Your task to perform on an android device: Search for a 3d printer on aliexpress Image 0: 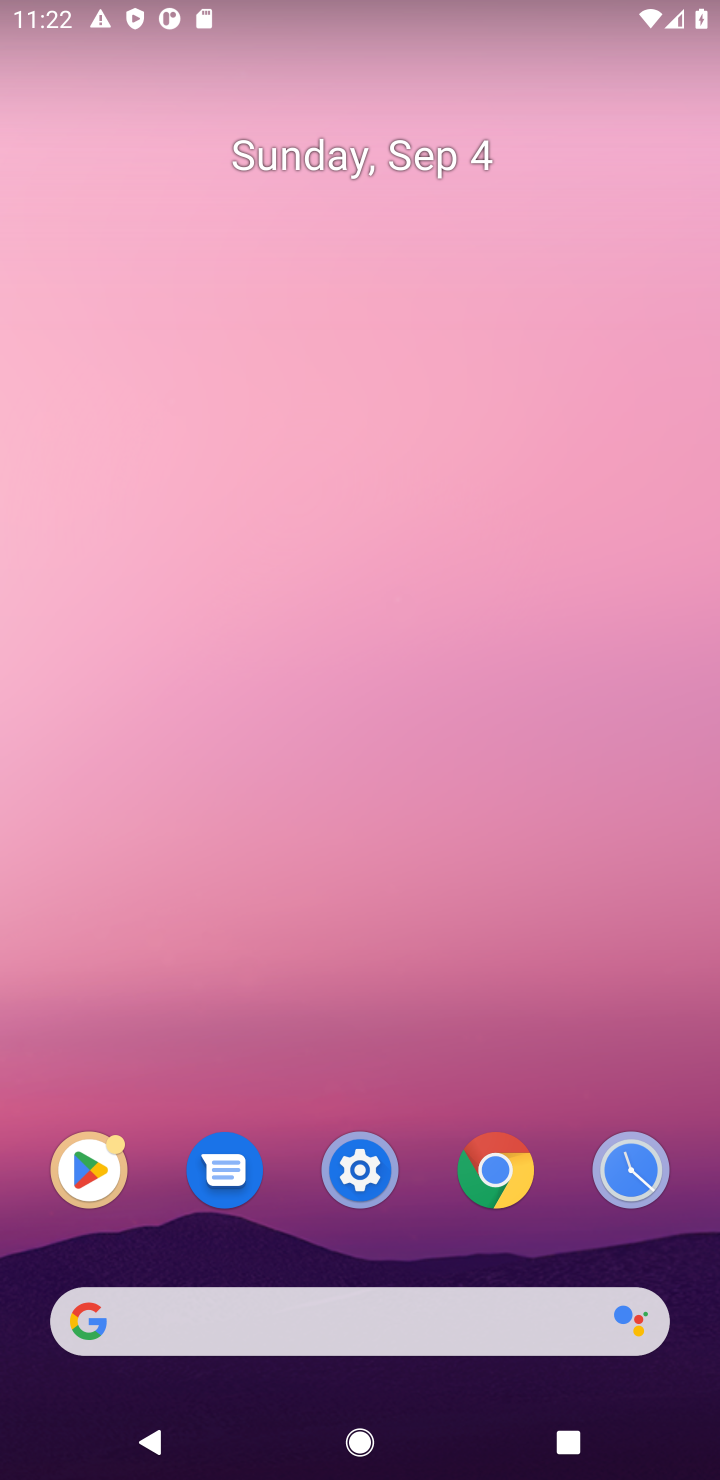
Step 0: click (345, 1330)
Your task to perform on an android device: Search for a 3d printer on aliexpress Image 1: 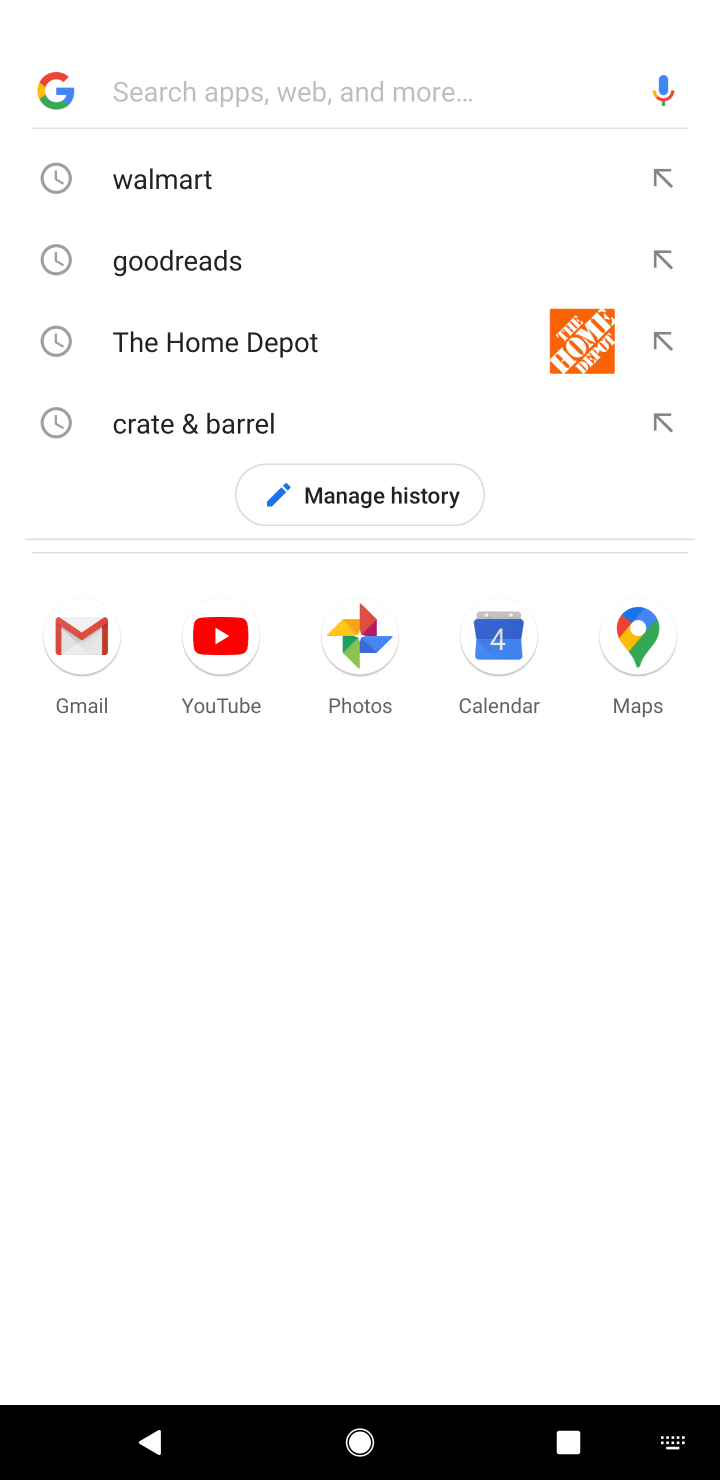
Step 1: type "aliexpress"
Your task to perform on an android device: Search for a 3d printer on aliexpress Image 2: 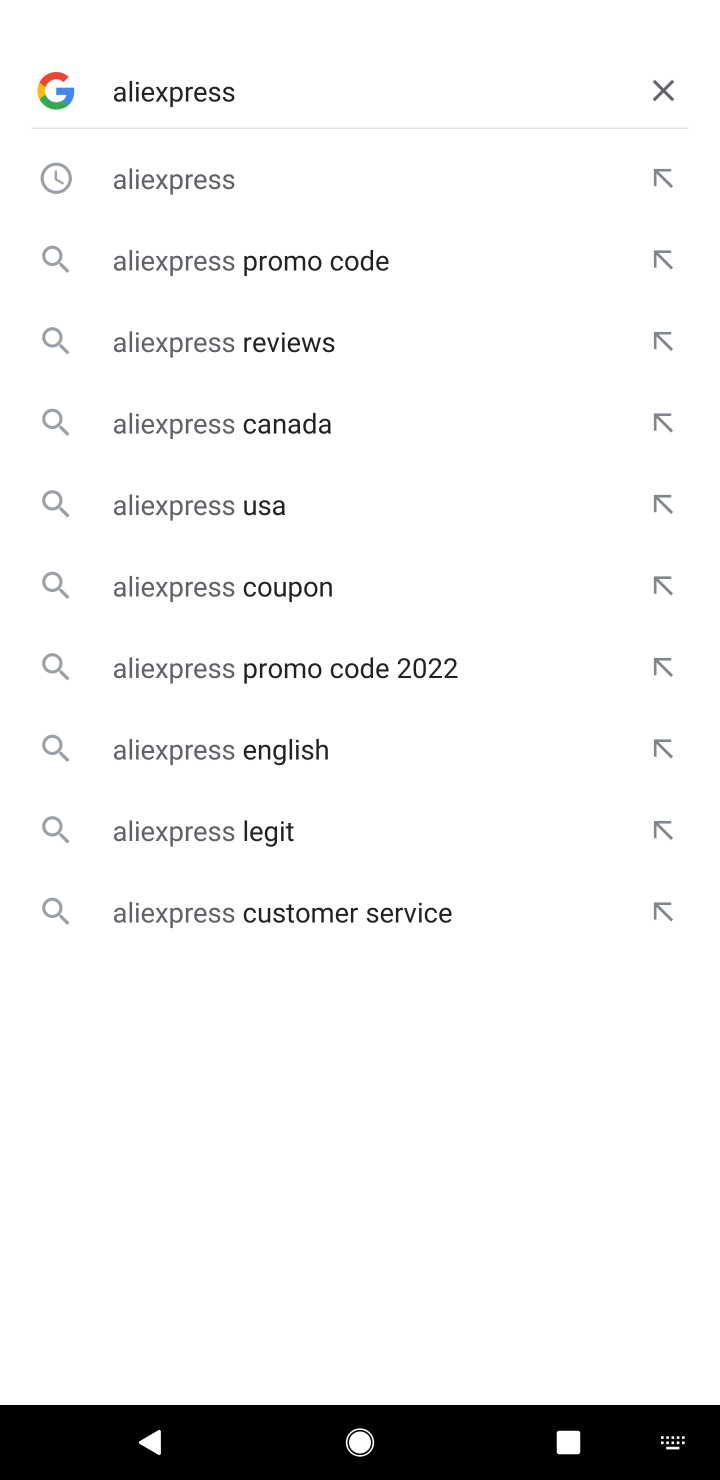
Step 2: click (162, 165)
Your task to perform on an android device: Search for a 3d printer on aliexpress Image 3: 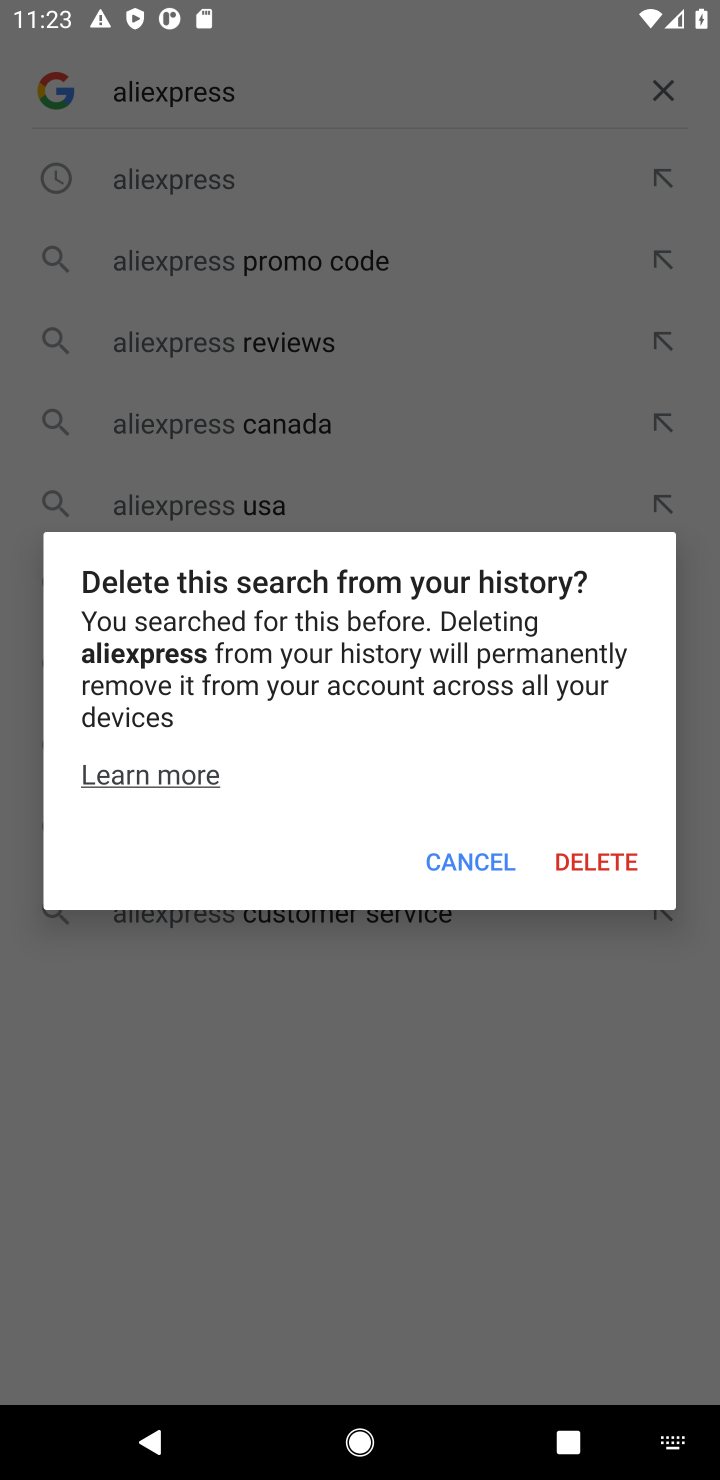
Step 3: click (504, 858)
Your task to perform on an android device: Search for a 3d printer on aliexpress Image 4: 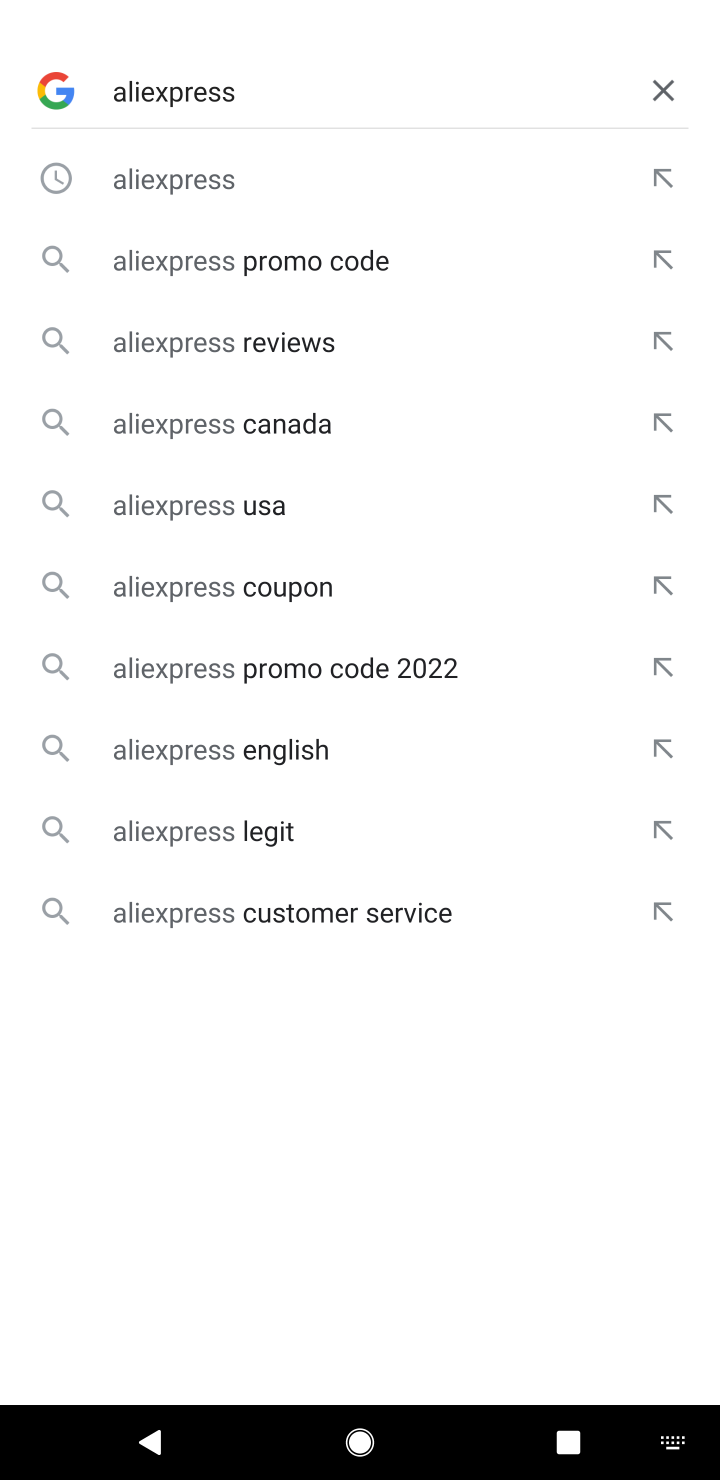
Step 4: click (153, 172)
Your task to perform on an android device: Search for a 3d printer on aliexpress Image 5: 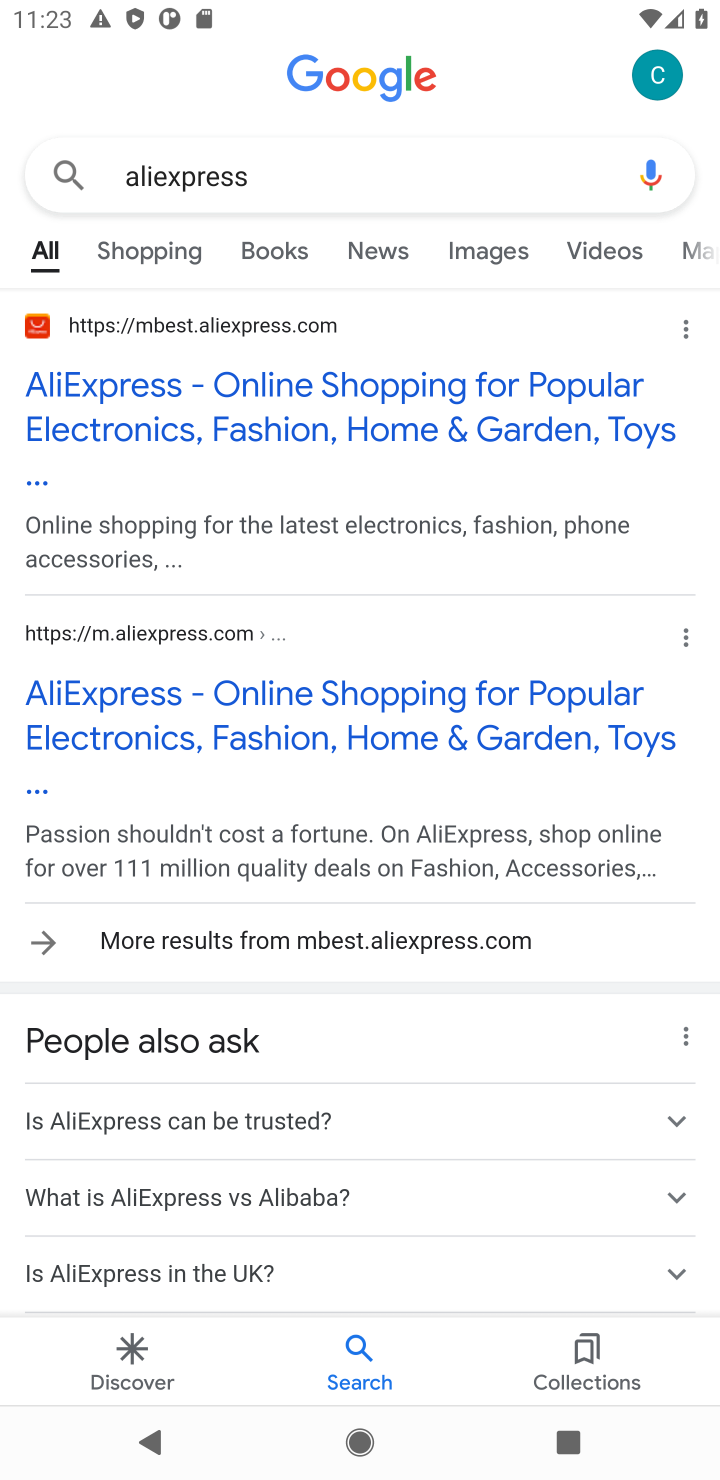
Step 5: click (189, 429)
Your task to perform on an android device: Search for a 3d printer on aliexpress Image 6: 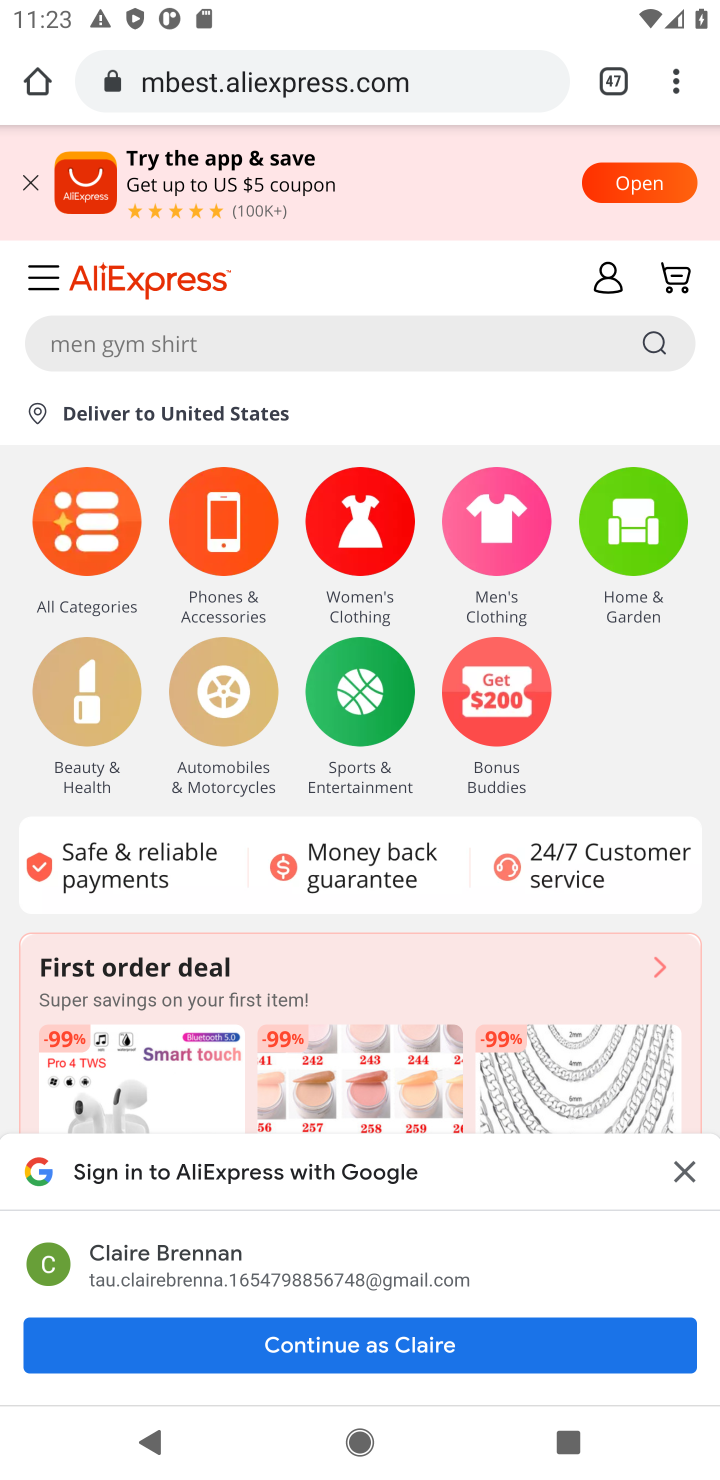
Step 6: click (260, 328)
Your task to perform on an android device: Search for a 3d printer on aliexpress Image 7: 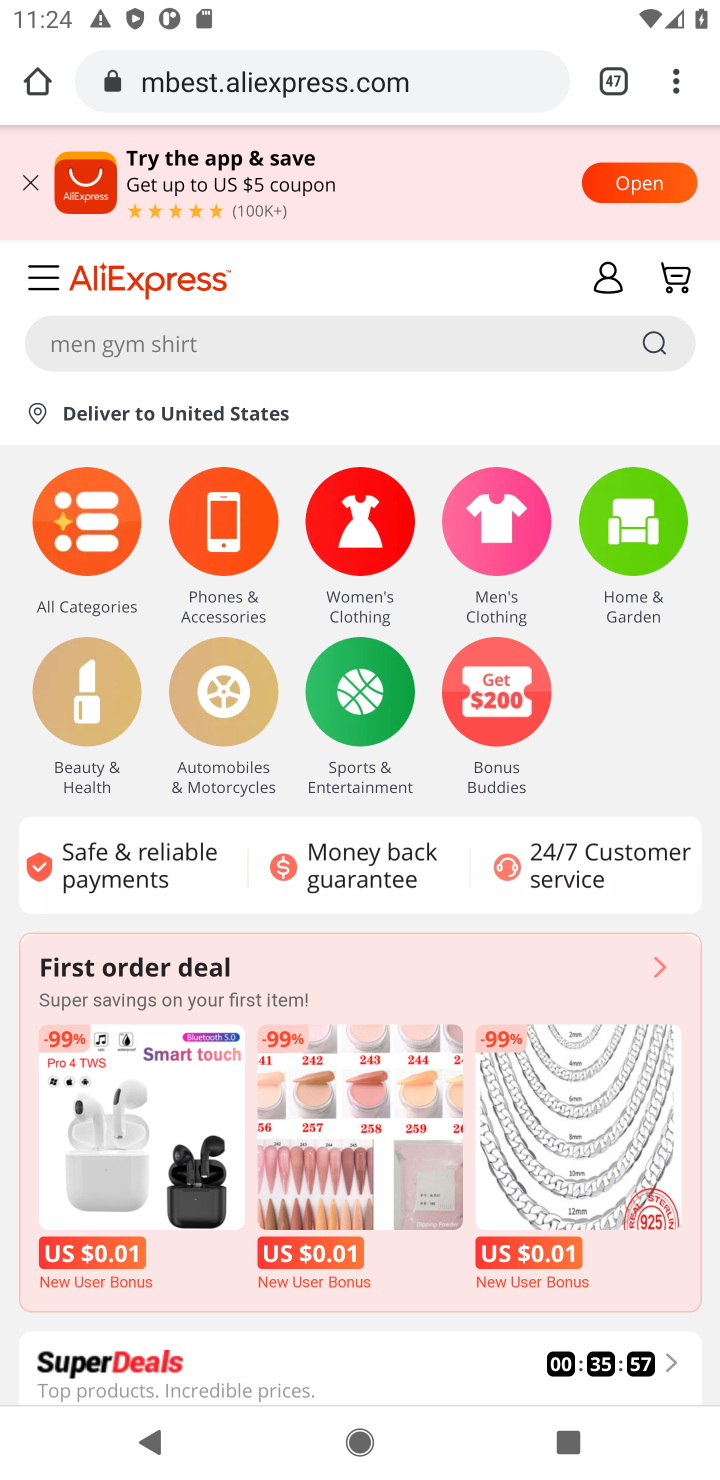
Step 7: type "3d printer"
Your task to perform on an android device: Search for a 3d printer on aliexpress Image 8: 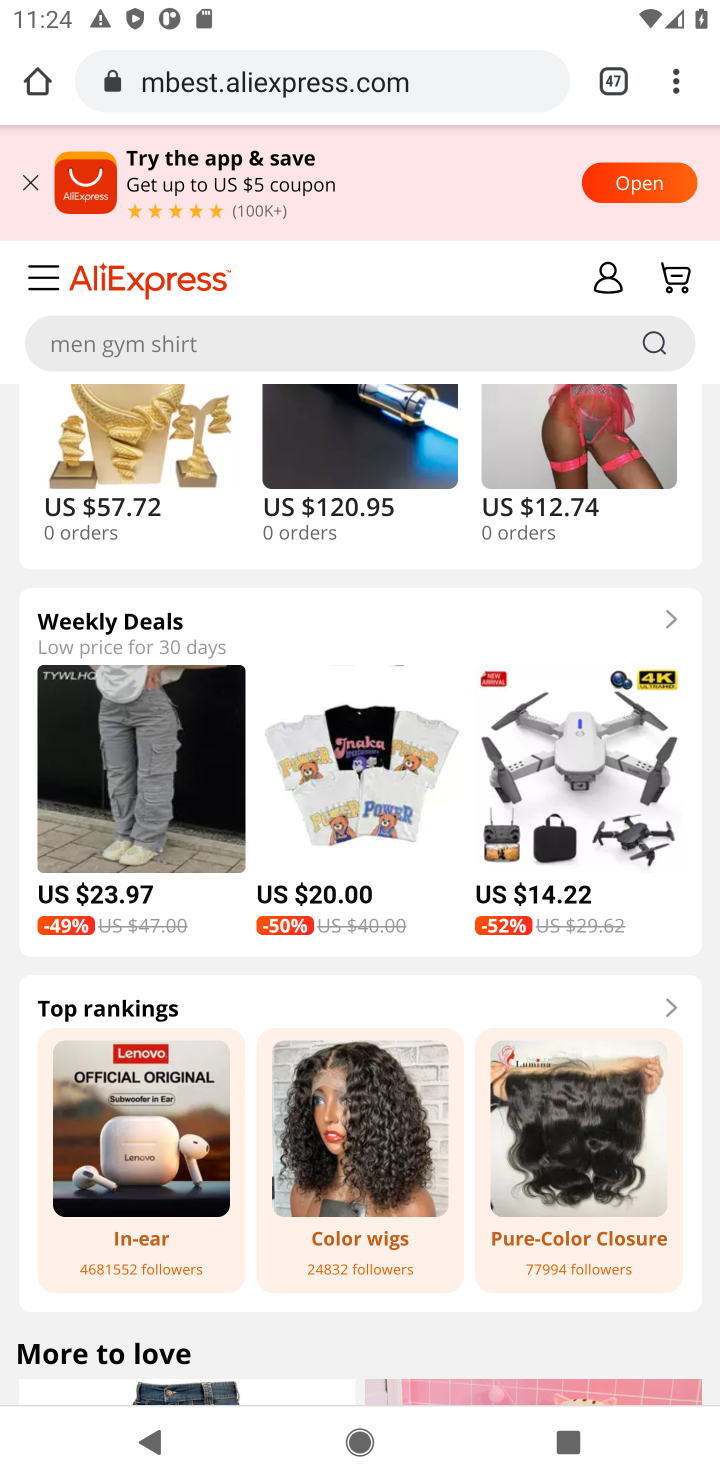
Step 8: click (449, 322)
Your task to perform on an android device: Search for a 3d printer on aliexpress Image 9: 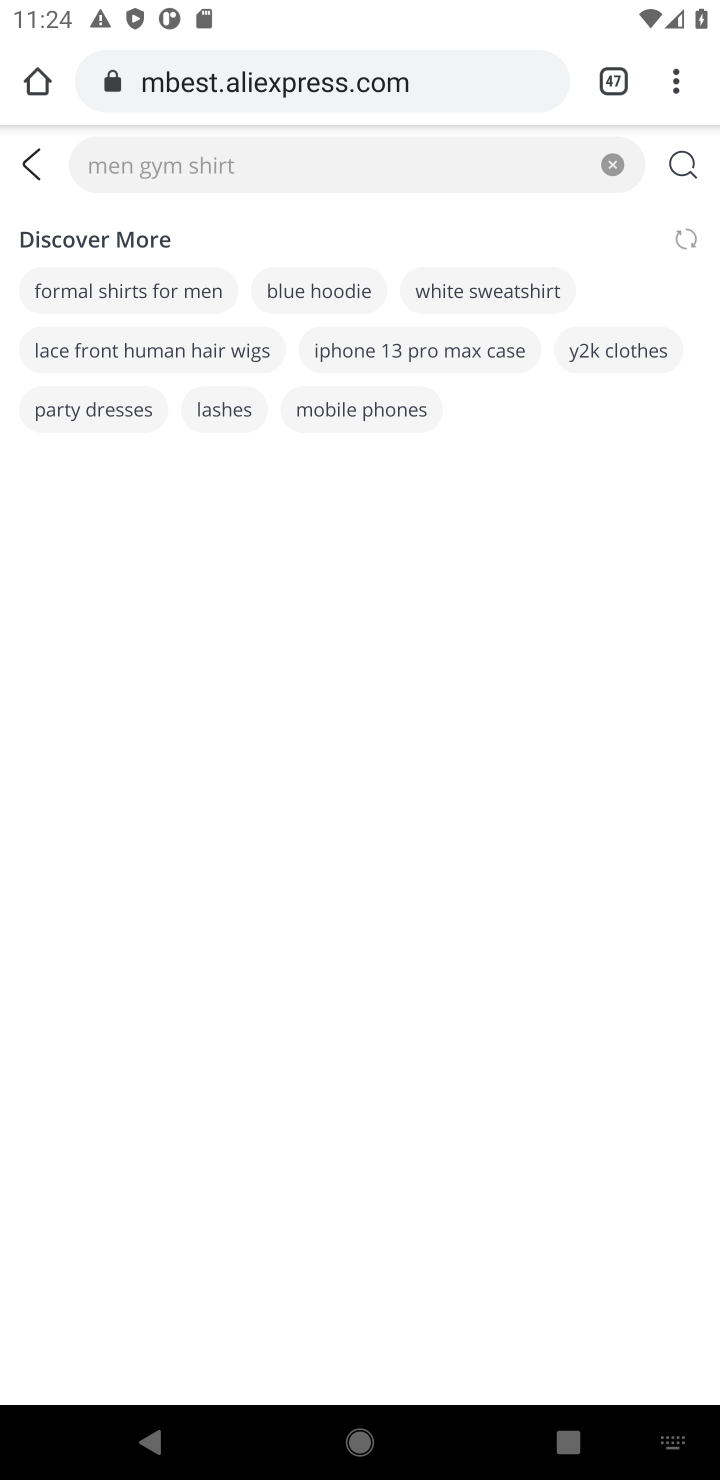
Step 9: type "3d printer"
Your task to perform on an android device: Search for a 3d printer on aliexpress Image 10: 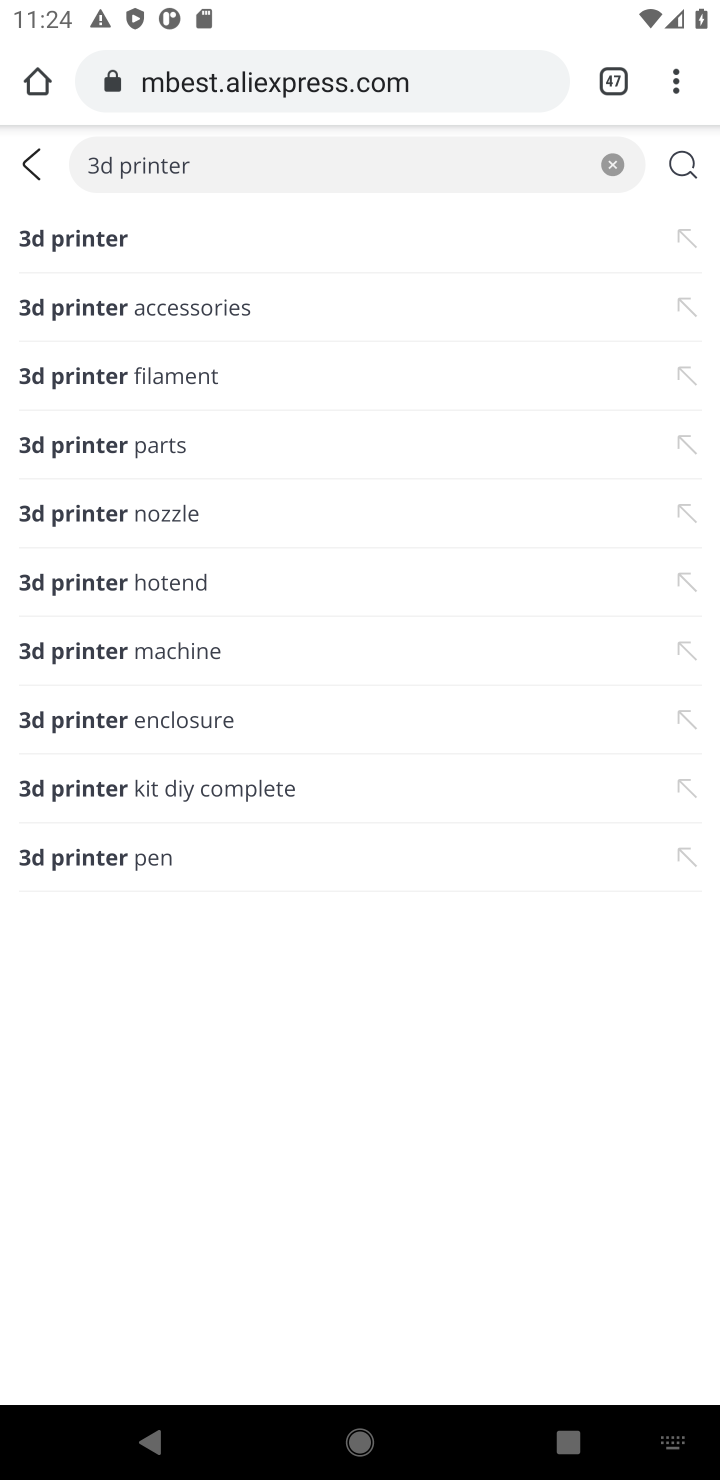
Step 10: click (100, 224)
Your task to perform on an android device: Search for a 3d printer on aliexpress Image 11: 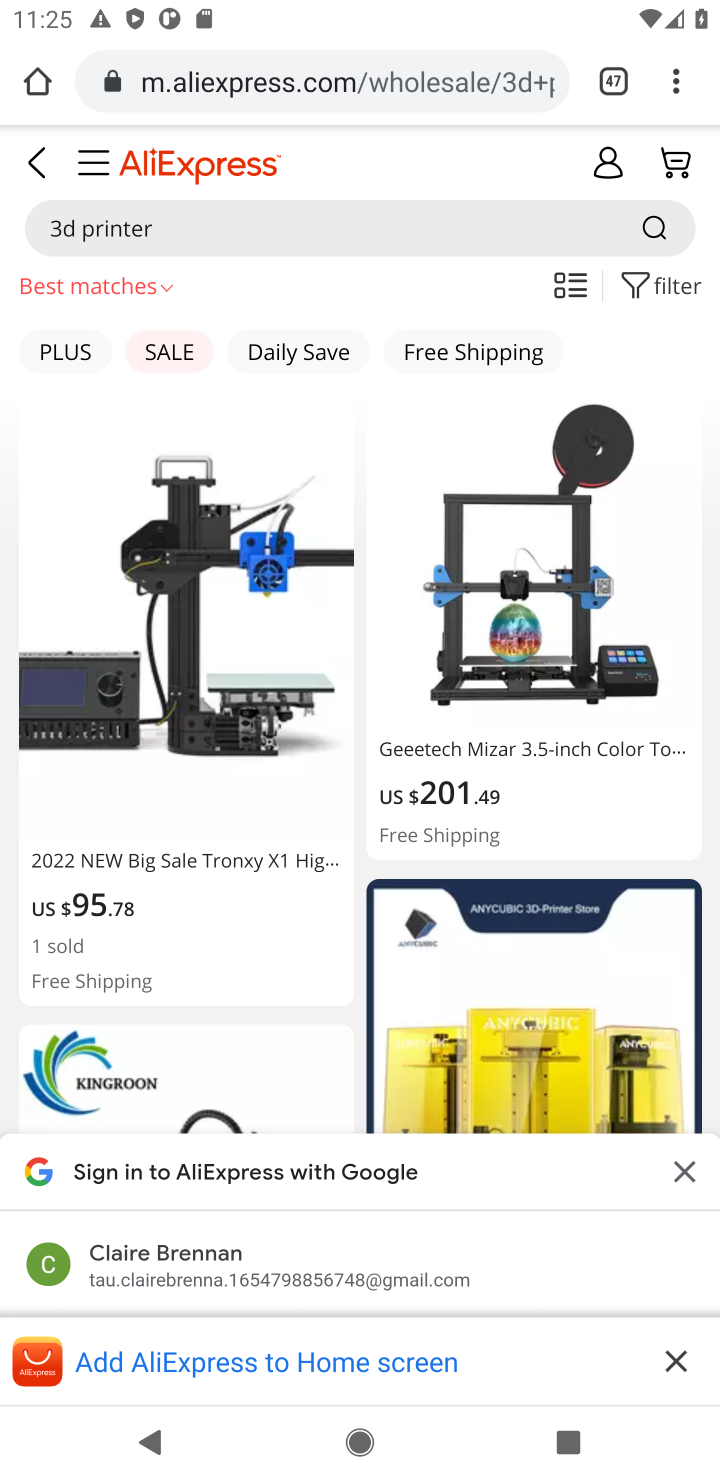
Step 11: task complete